Your task to perform on an android device: Search for Mexican restaurants on Maps Image 0: 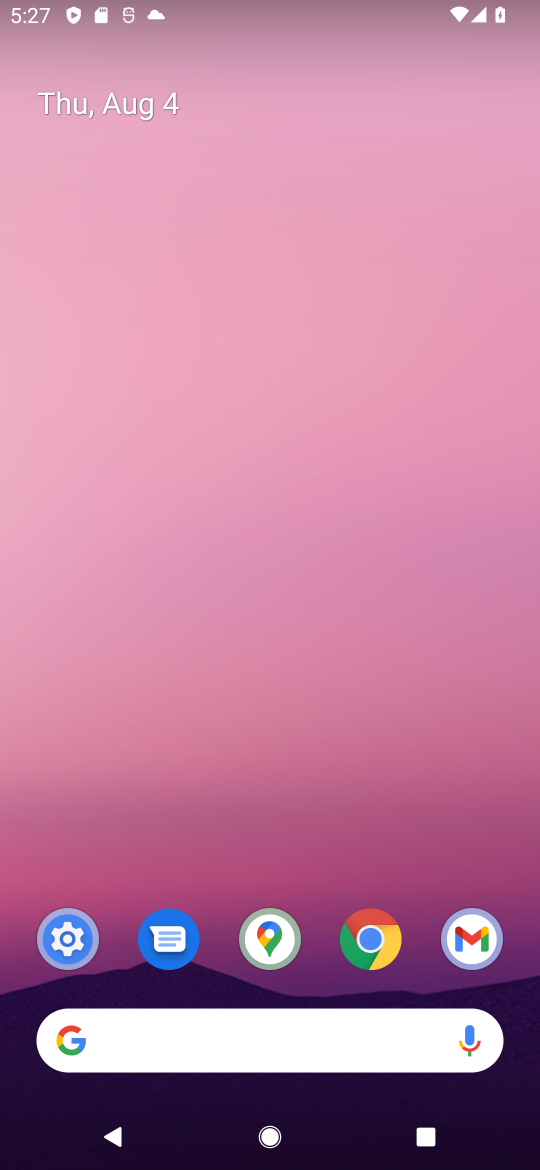
Step 0: click (286, 942)
Your task to perform on an android device: Search for Mexican restaurants on Maps Image 1: 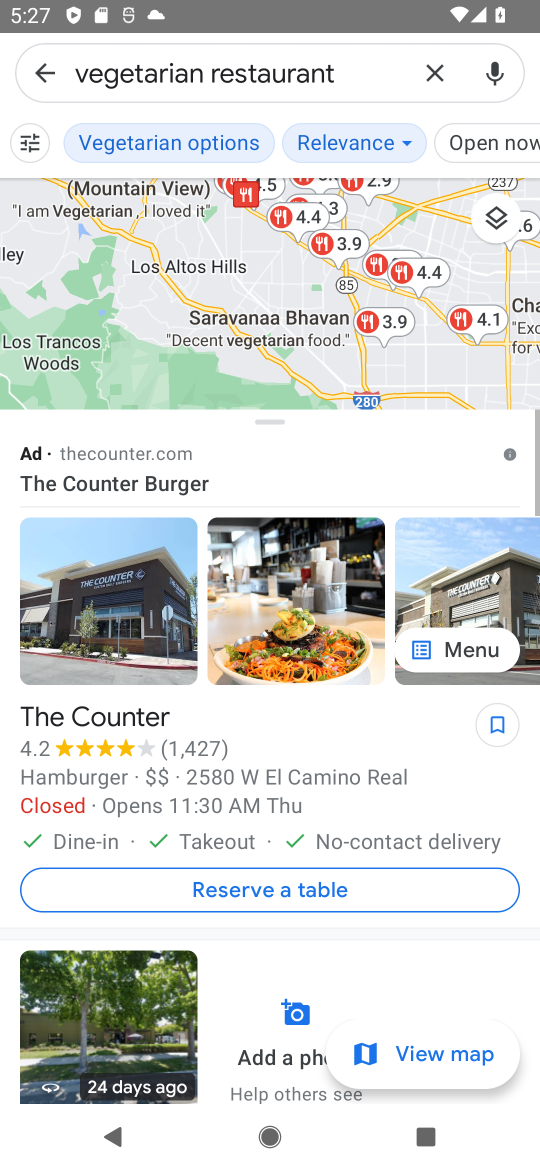
Step 1: click (433, 71)
Your task to perform on an android device: Search for Mexican restaurants on Maps Image 2: 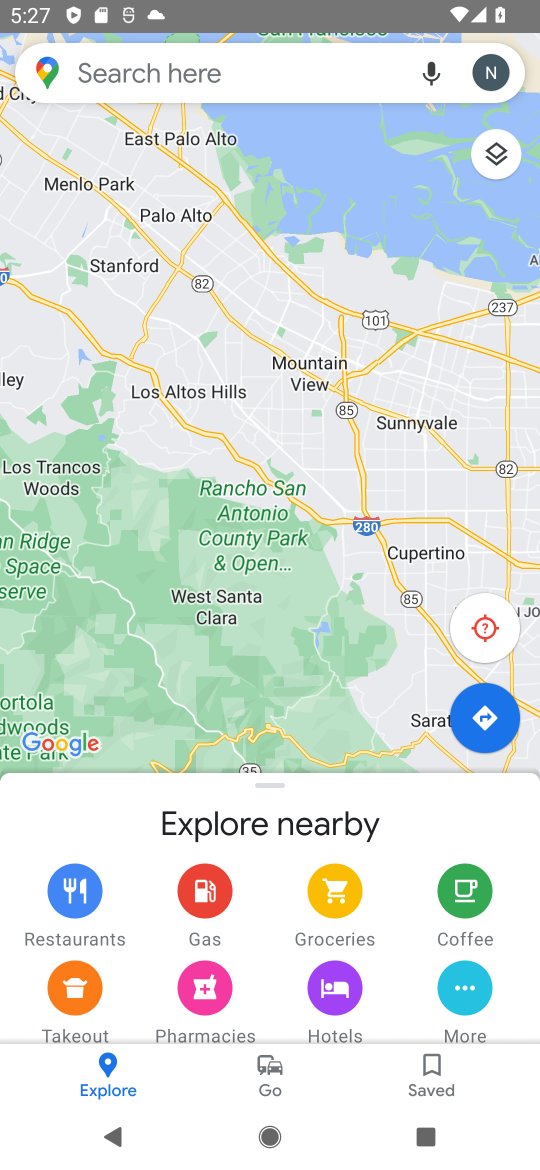
Step 2: click (354, 76)
Your task to perform on an android device: Search for Mexican restaurants on Maps Image 3: 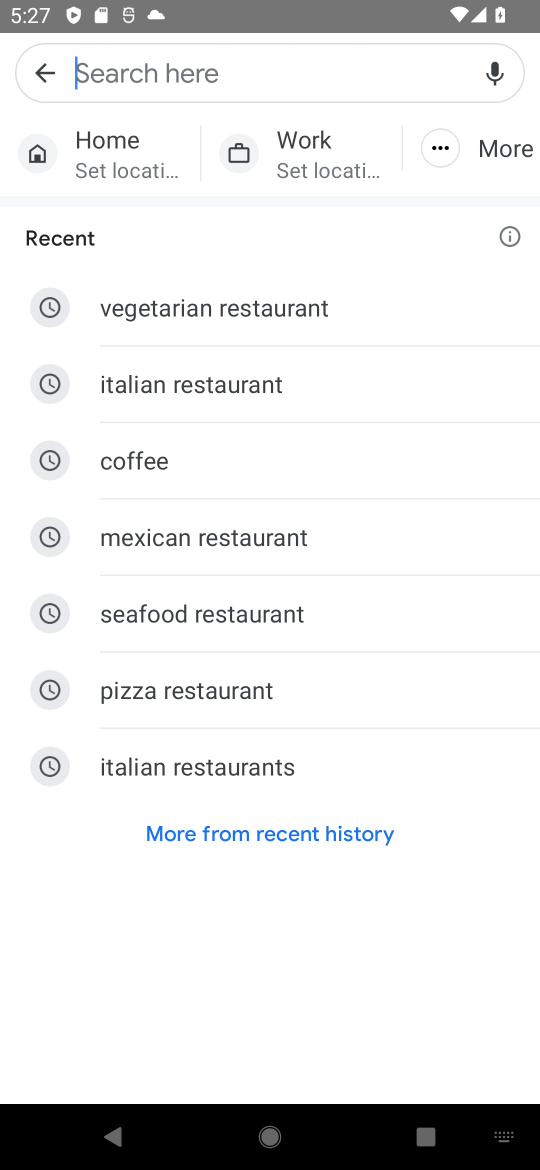
Step 3: click (197, 542)
Your task to perform on an android device: Search for Mexican restaurants on Maps Image 4: 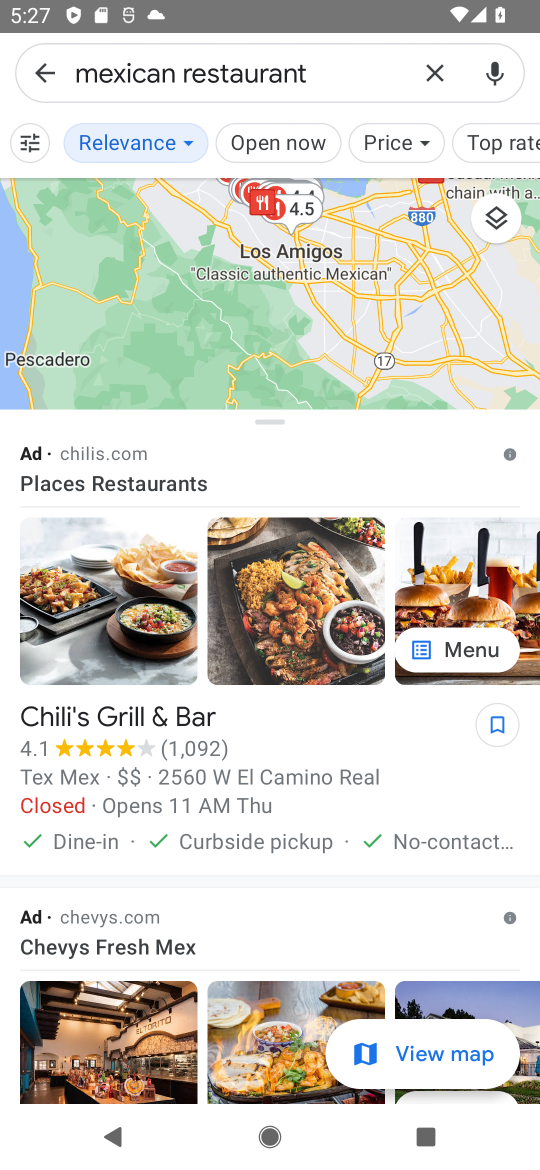
Step 4: task complete